Your task to perform on an android device: find snoozed emails in the gmail app Image 0: 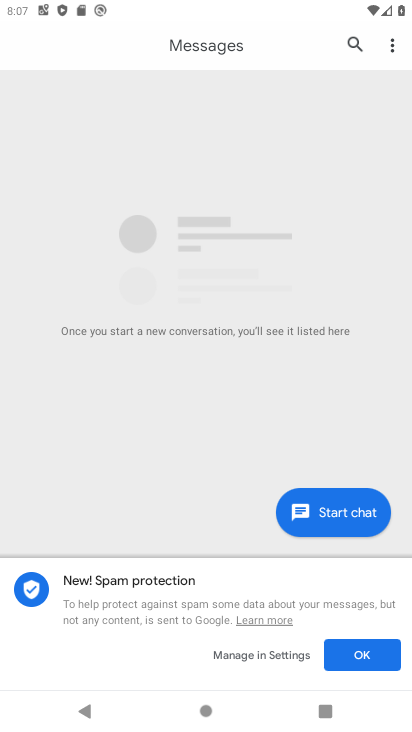
Step 0: press home button
Your task to perform on an android device: find snoozed emails in the gmail app Image 1: 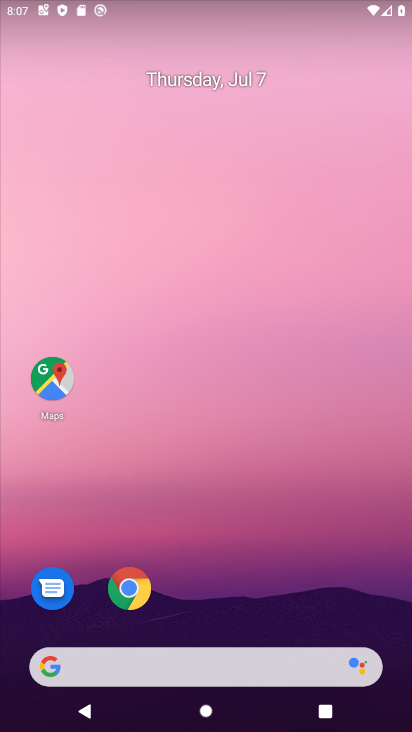
Step 1: drag from (47, 709) to (411, 727)
Your task to perform on an android device: find snoozed emails in the gmail app Image 2: 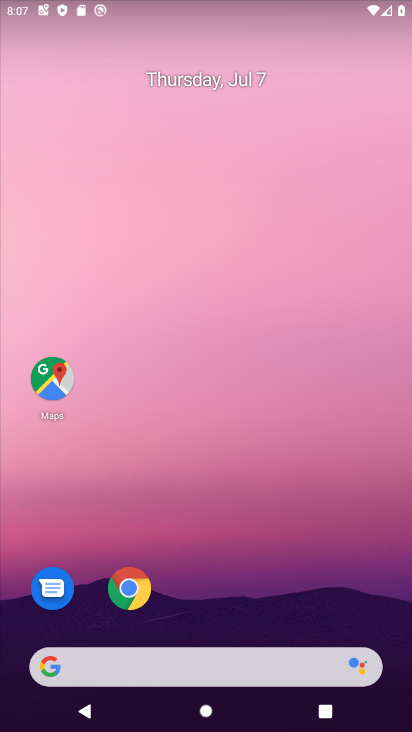
Step 2: drag from (40, 708) to (375, 26)
Your task to perform on an android device: find snoozed emails in the gmail app Image 3: 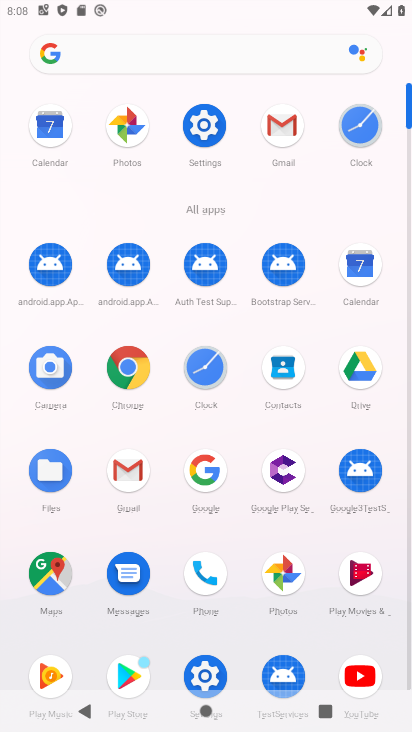
Step 3: click (114, 467)
Your task to perform on an android device: find snoozed emails in the gmail app Image 4: 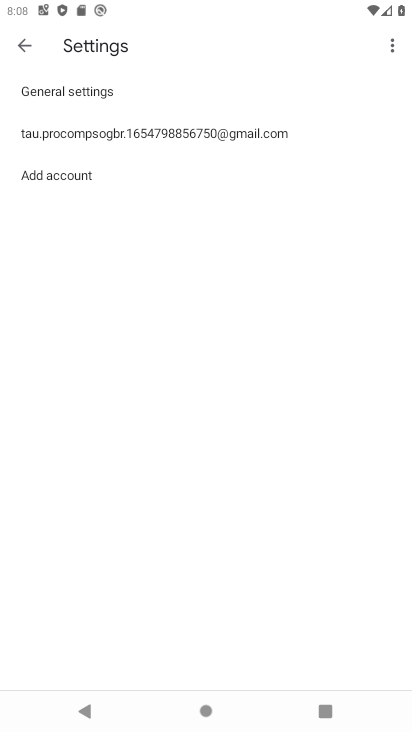
Step 4: click (28, 51)
Your task to perform on an android device: find snoozed emails in the gmail app Image 5: 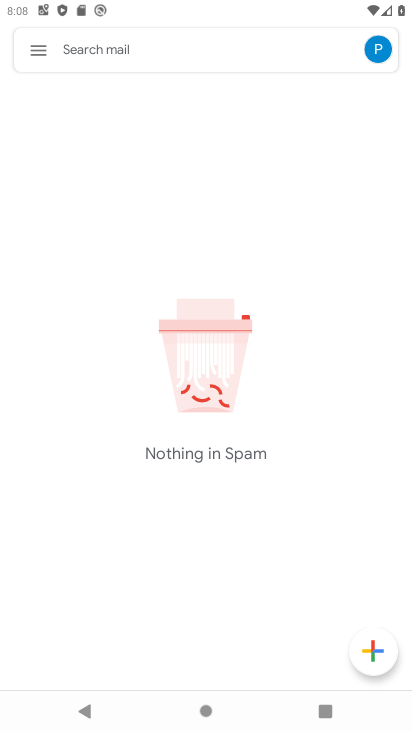
Step 5: click (34, 59)
Your task to perform on an android device: find snoozed emails in the gmail app Image 6: 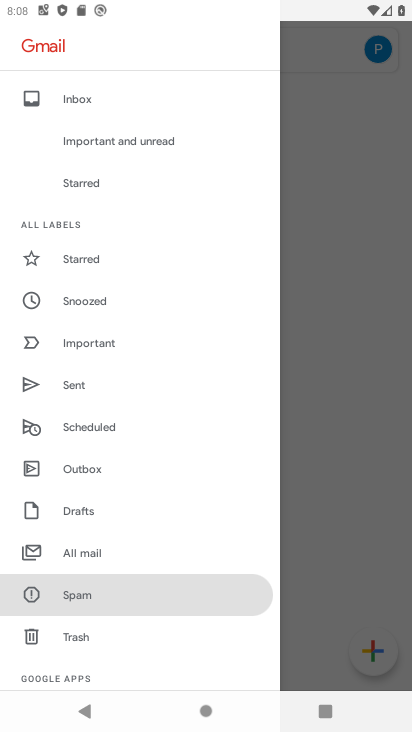
Step 6: click (109, 300)
Your task to perform on an android device: find snoozed emails in the gmail app Image 7: 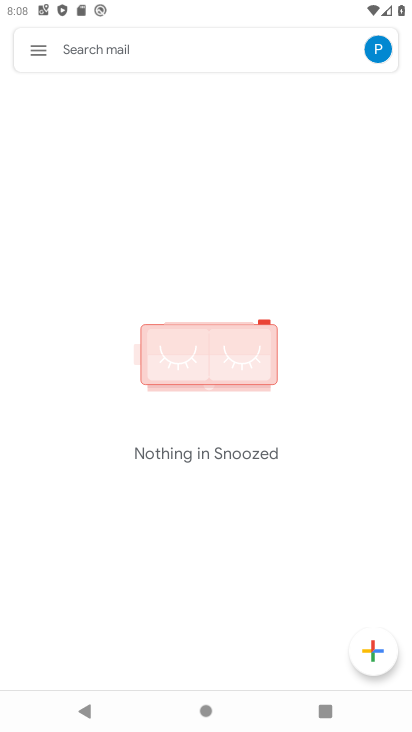
Step 7: task complete